Your task to perform on an android device: Open Google Maps Image 0: 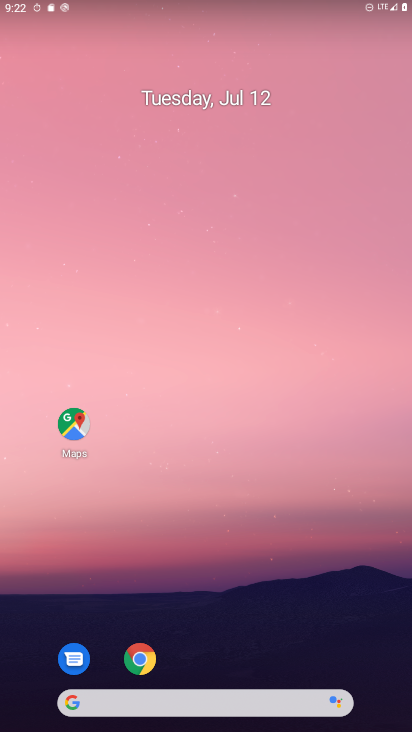
Step 0: drag from (374, 663) to (261, 49)
Your task to perform on an android device: Open Google Maps Image 1: 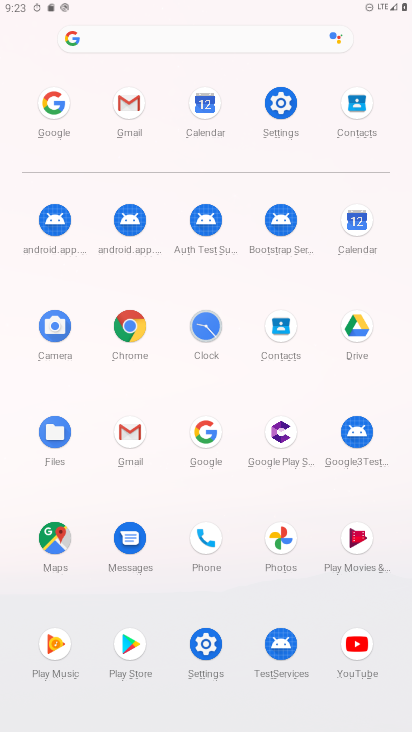
Step 1: click (53, 528)
Your task to perform on an android device: Open Google Maps Image 2: 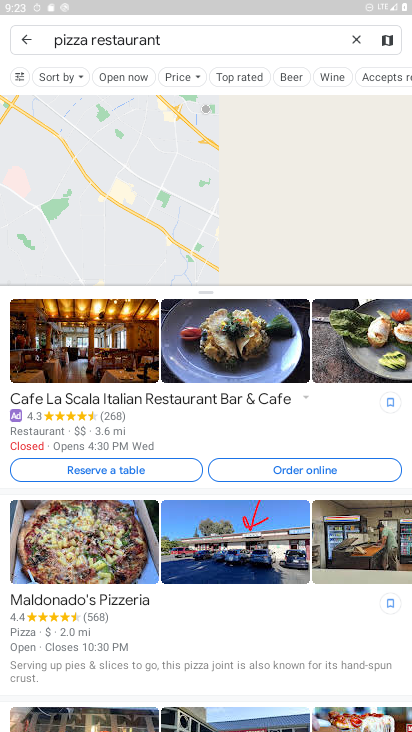
Step 2: click (356, 38)
Your task to perform on an android device: Open Google Maps Image 3: 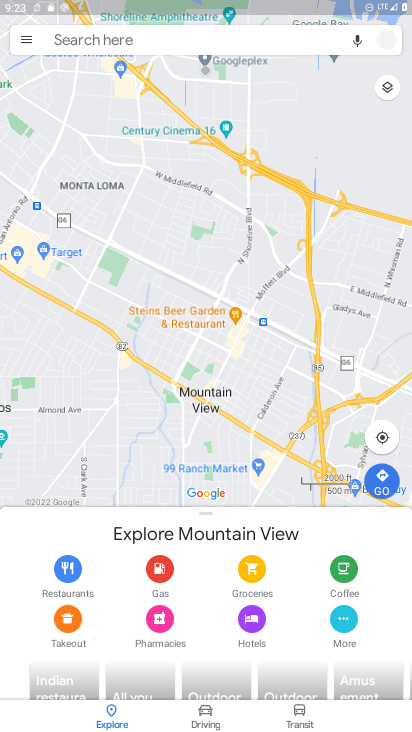
Step 3: task complete